Your task to perform on an android device: What is the recent news? Image 0: 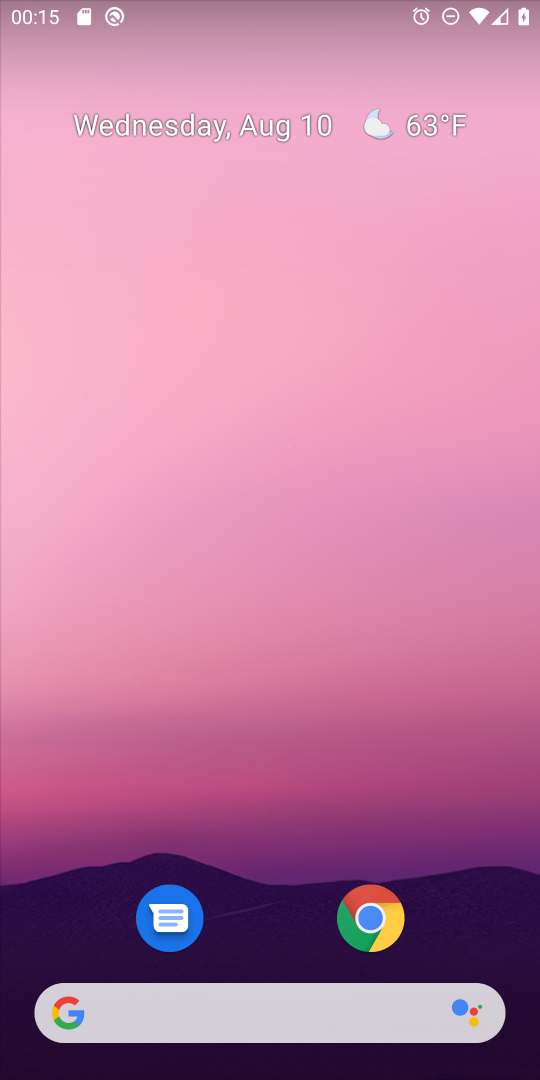
Step 0: drag from (260, 903) to (436, 96)
Your task to perform on an android device: What is the recent news? Image 1: 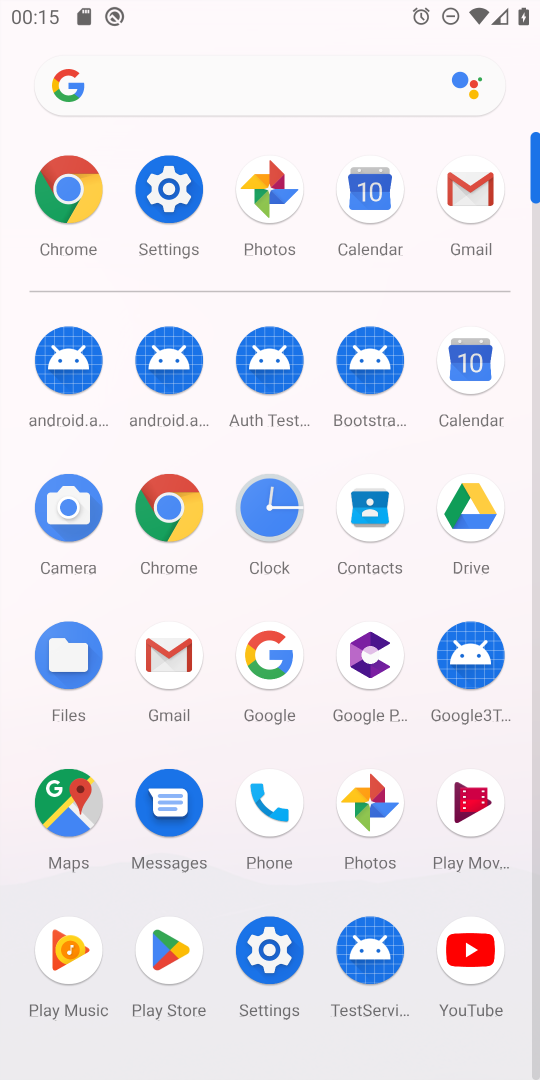
Step 1: click (162, 512)
Your task to perform on an android device: What is the recent news? Image 2: 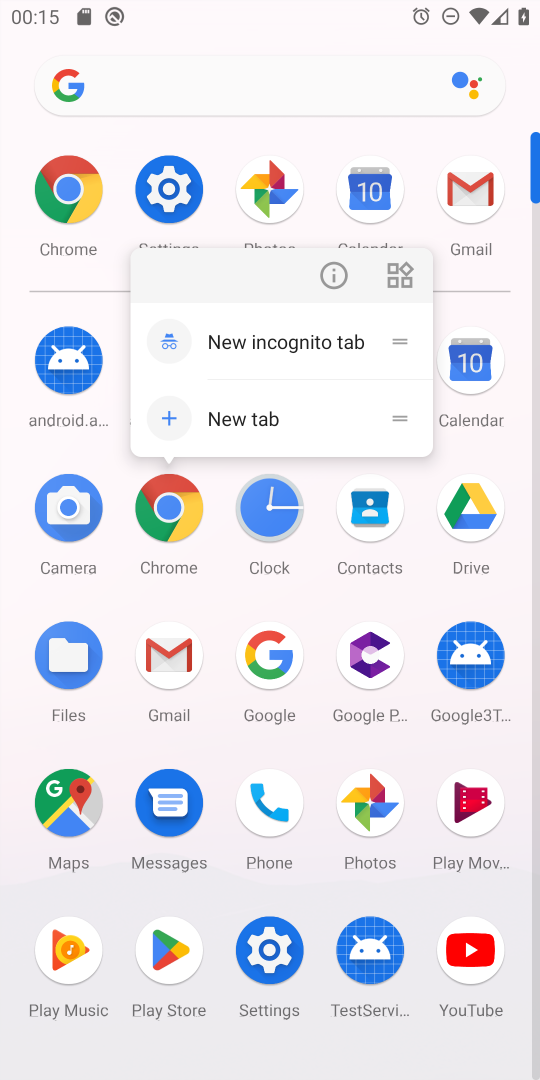
Step 2: click (166, 507)
Your task to perform on an android device: What is the recent news? Image 3: 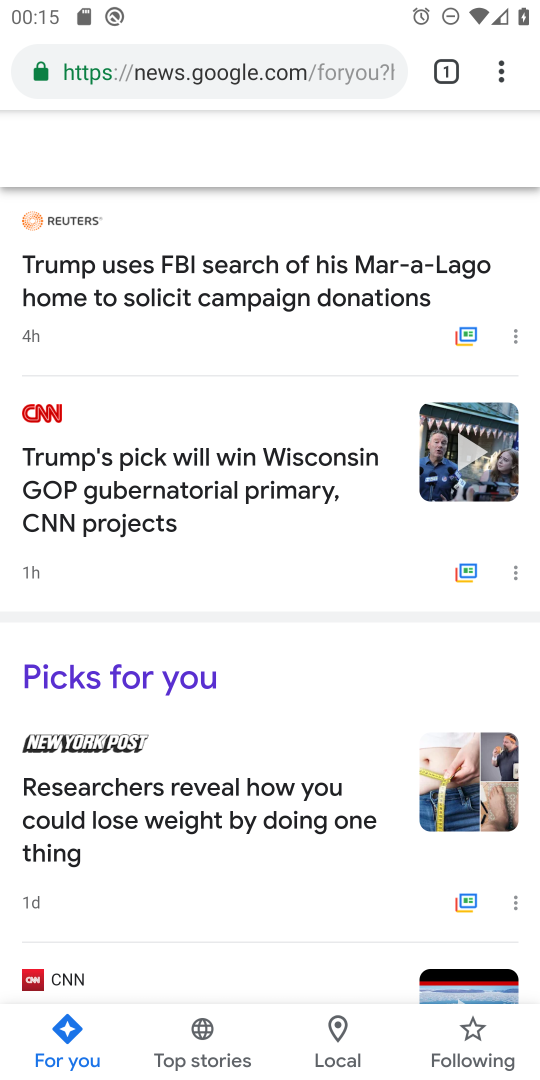
Step 3: task complete